Your task to perform on an android device: turn off location Image 0: 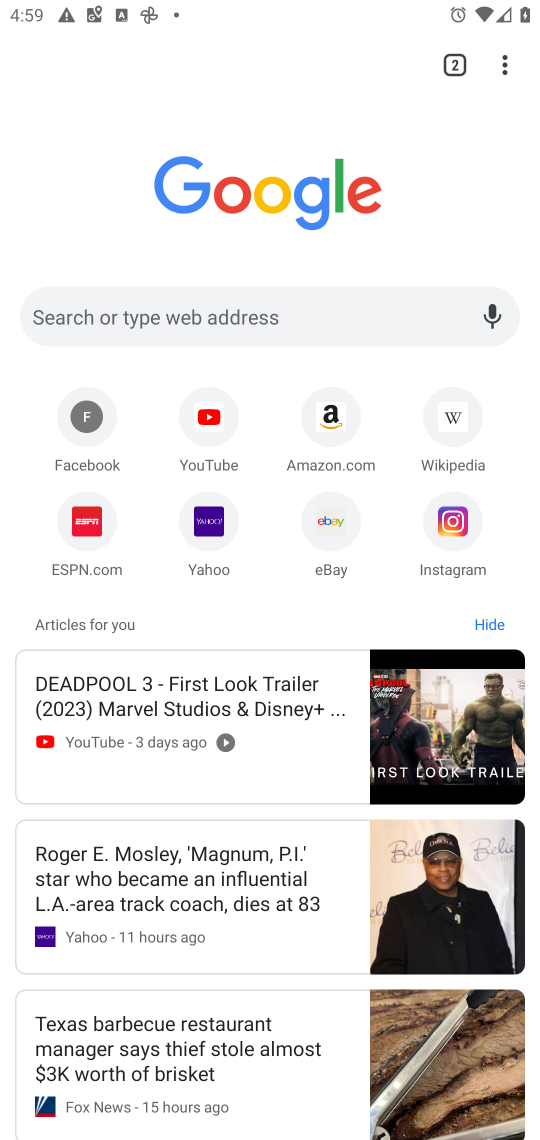
Step 0: click (512, 53)
Your task to perform on an android device: turn off location Image 1: 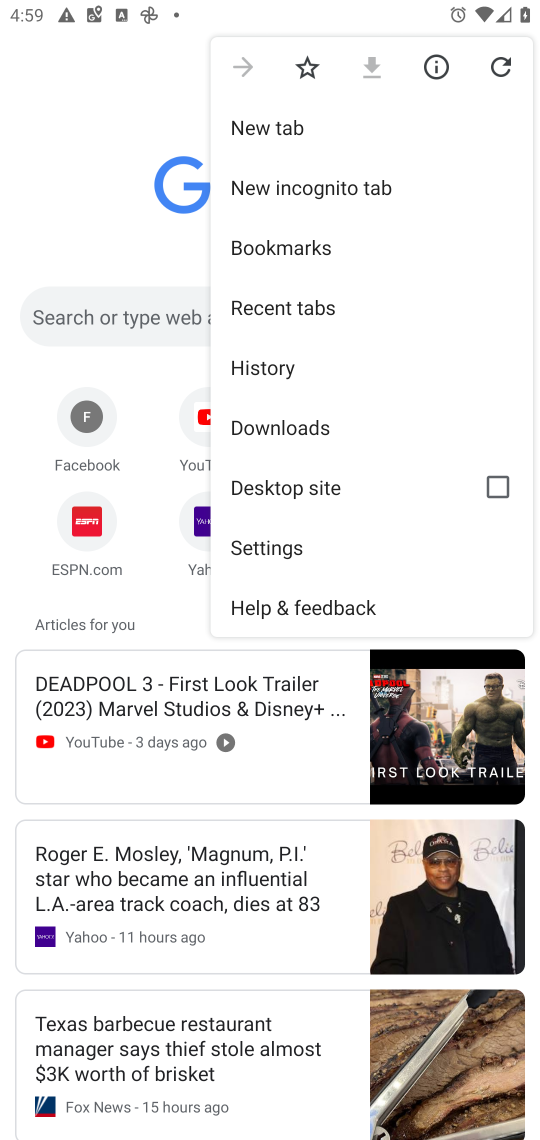
Step 1: click (300, 548)
Your task to perform on an android device: turn off location Image 2: 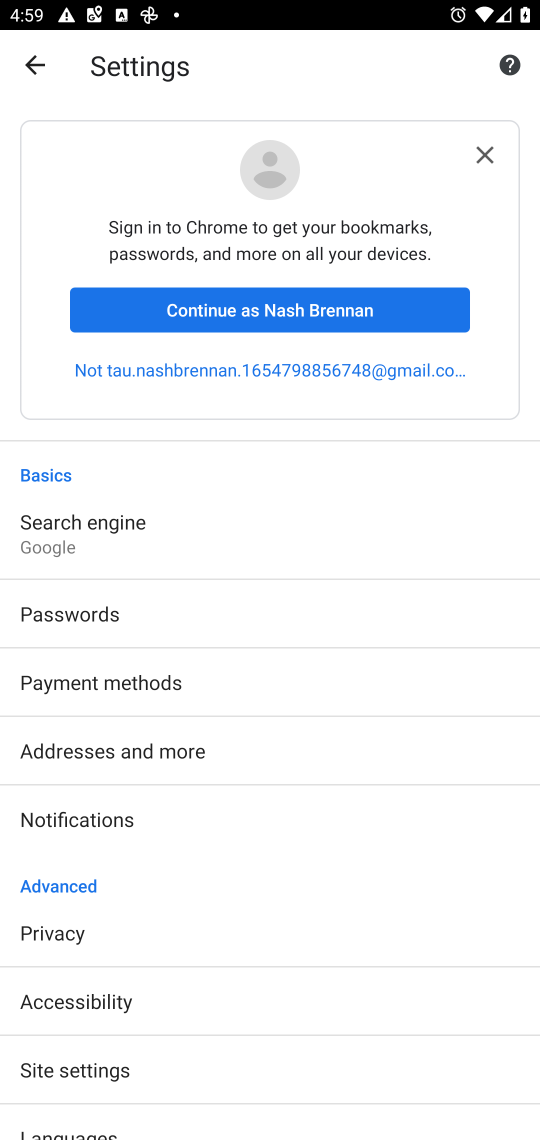
Step 2: press home button
Your task to perform on an android device: turn off location Image 3: 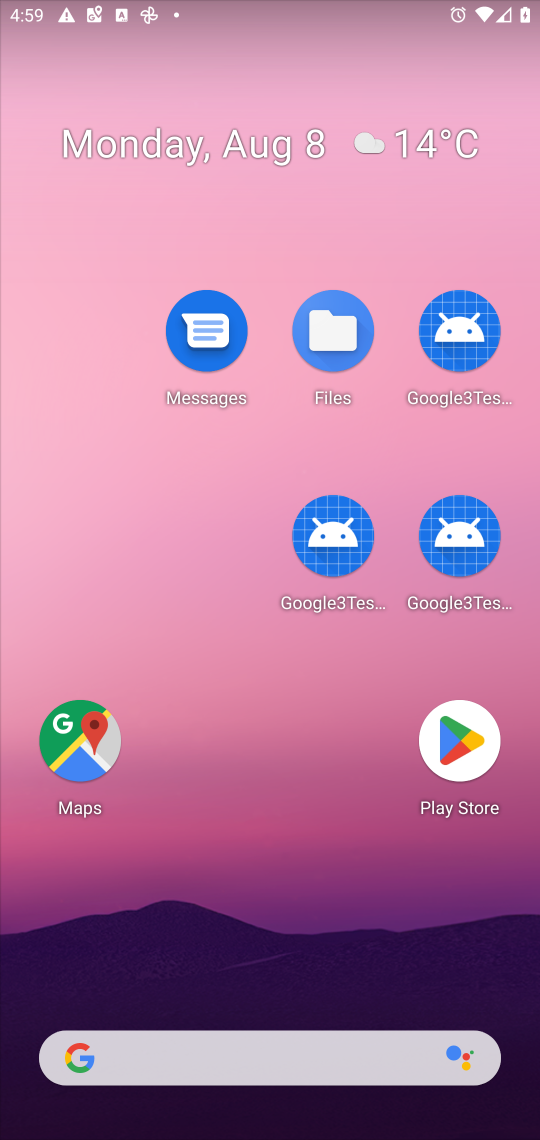
Step 3: drag from (226, 1024) to (341, 116)
Your task to perform on an android device: turn off location Image 4: 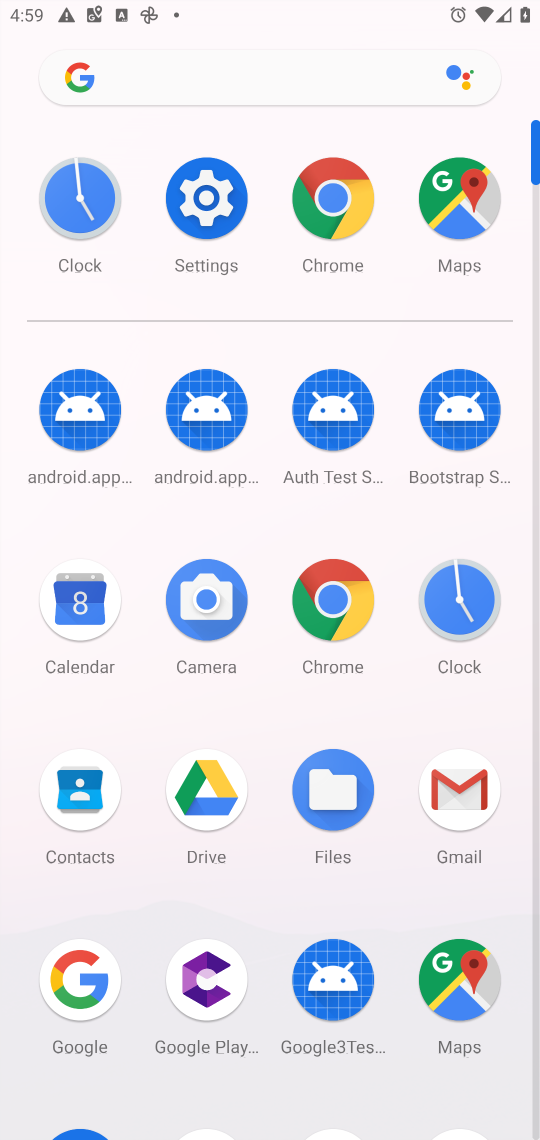
Step 4: click (223, 205)
Your task to perform on an android device: turn off location Image 5: 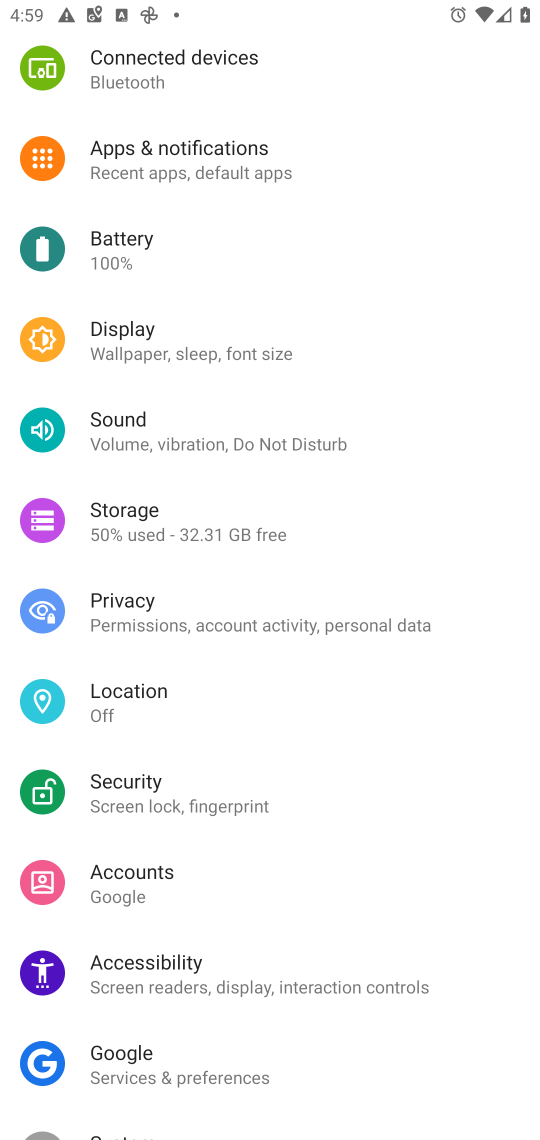
Step 5: click (138, 698)
Your task to perform on an android device: turn off location Image 6: 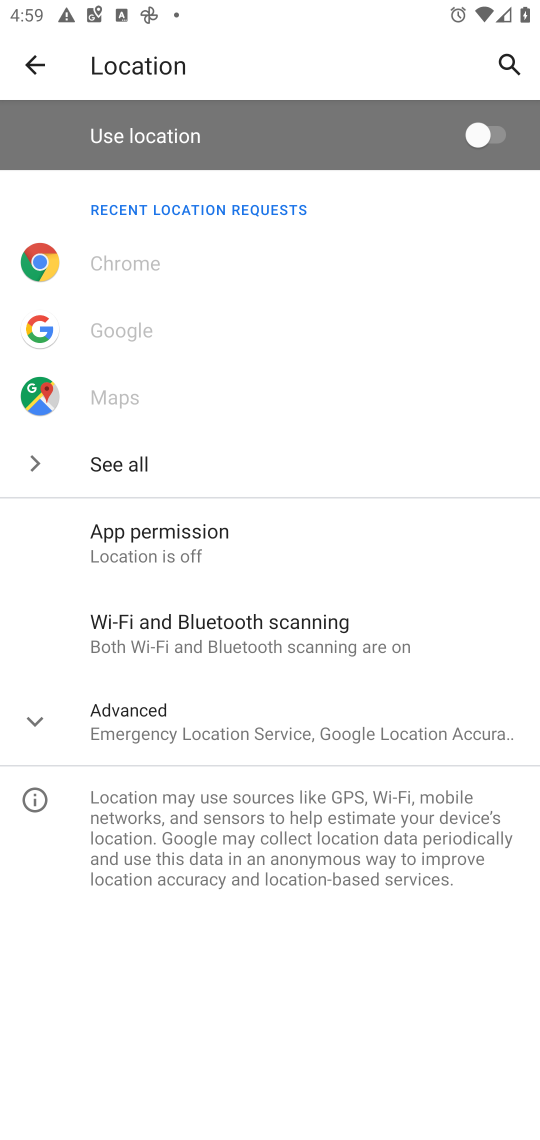
Step 6: task complete